Your task to perform on an android device: Open the Play Movies app and select the watchlist tab. Image 0: 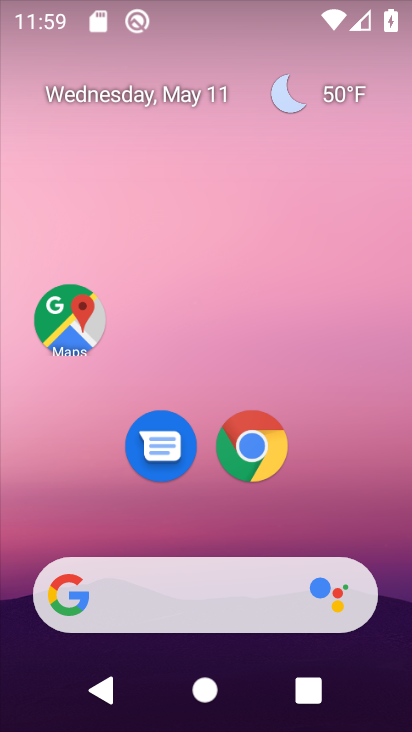
Step 0: click (333, 503)
Your task to perform on an android device: Open the Play Movies app and select the watchlist tab. Image 1: 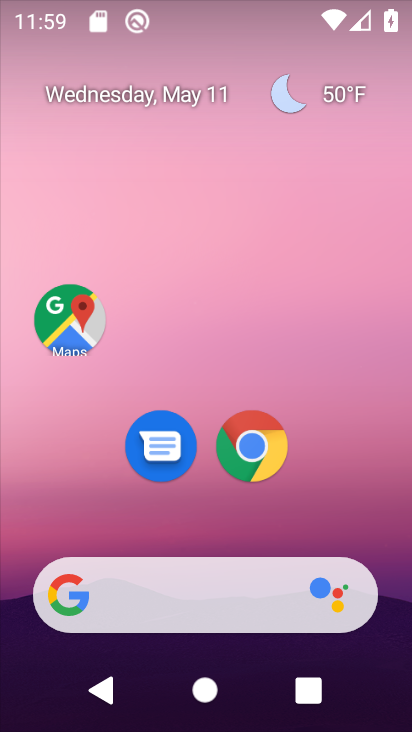
Step 1: drag from (366, 492) to (368, 171)
Your task to perform on an android device: Open the Play Movies app and select the watchlist tab. Image 2: 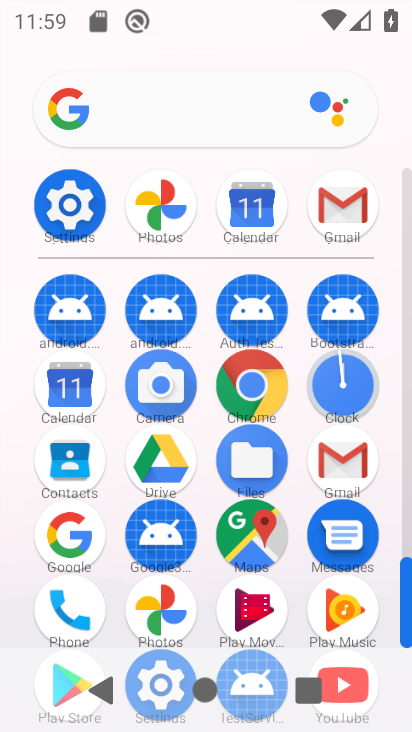
Step 2: click (253, 608)
Your task to perform on an android device: Open the Play Movies app and select the watchlist tab. Image 3: 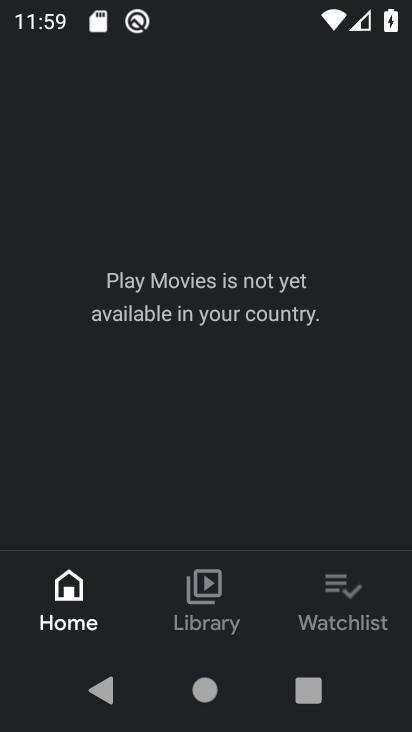
Step 3: click (337, 609)
Your task to perform on an android device: Open the Play Movies app and select the watchlist tab. Image 4: 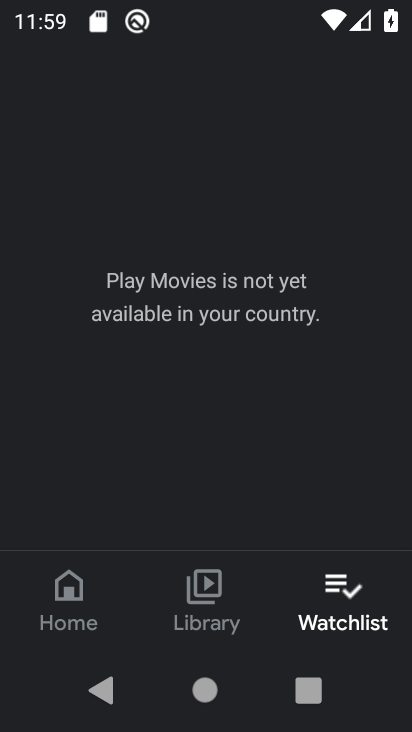
Step 4: task complete